Your task to perform on an android device: What's the latest video from Gameranx? Image 0: 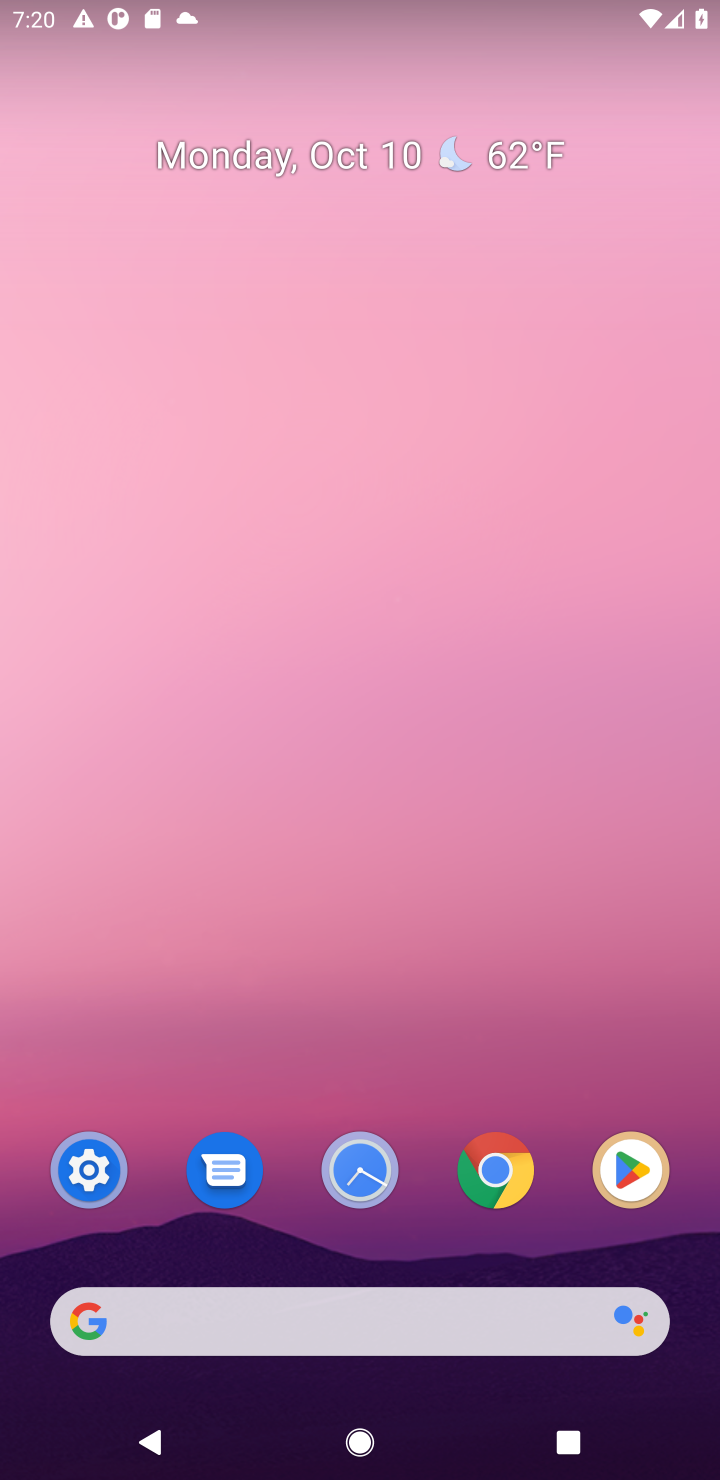
Step 0: drag from (470, 929) to (403, 0)
Your task to perform on an android device: What's the latest video from Gameranx? Image 1: 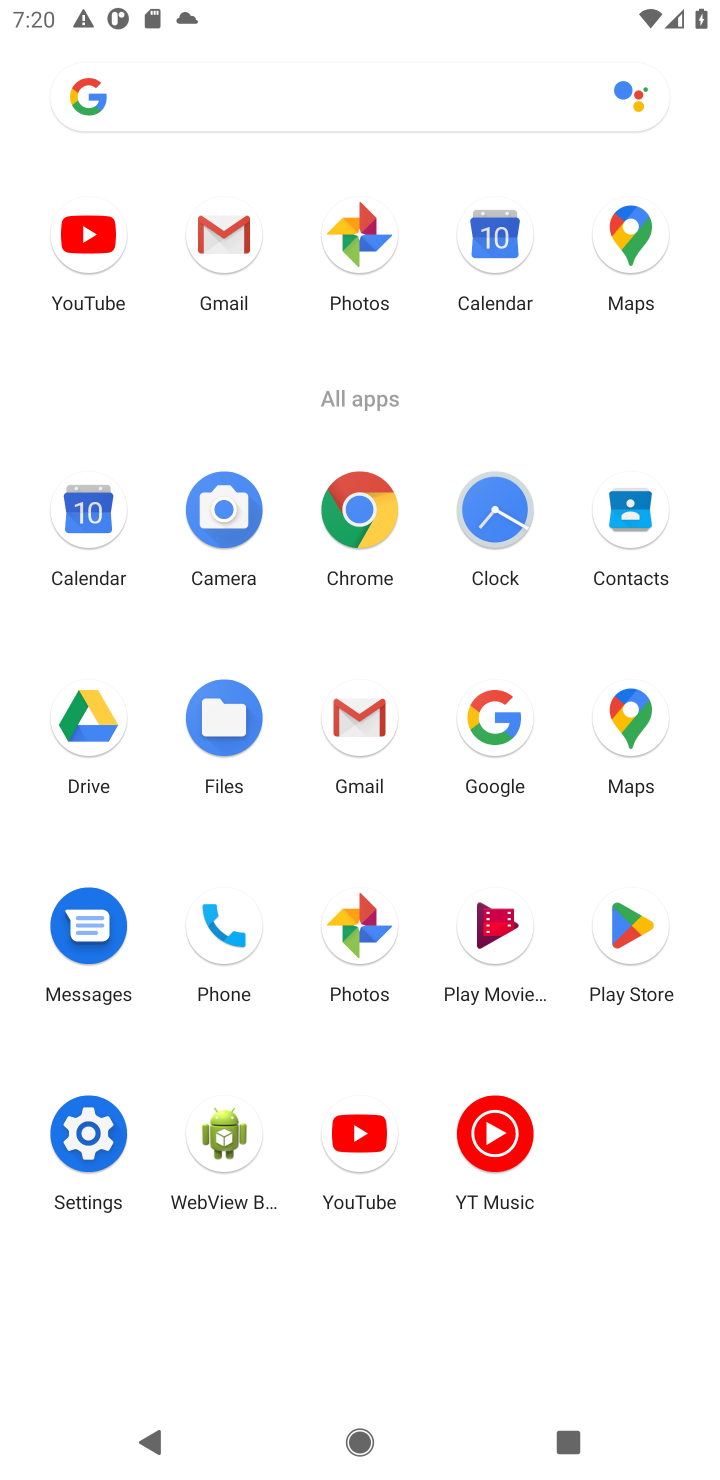
Step 1: click (101, 241)
Your task to perform on an android device: What's the latest video from Gameranx? Image 2: 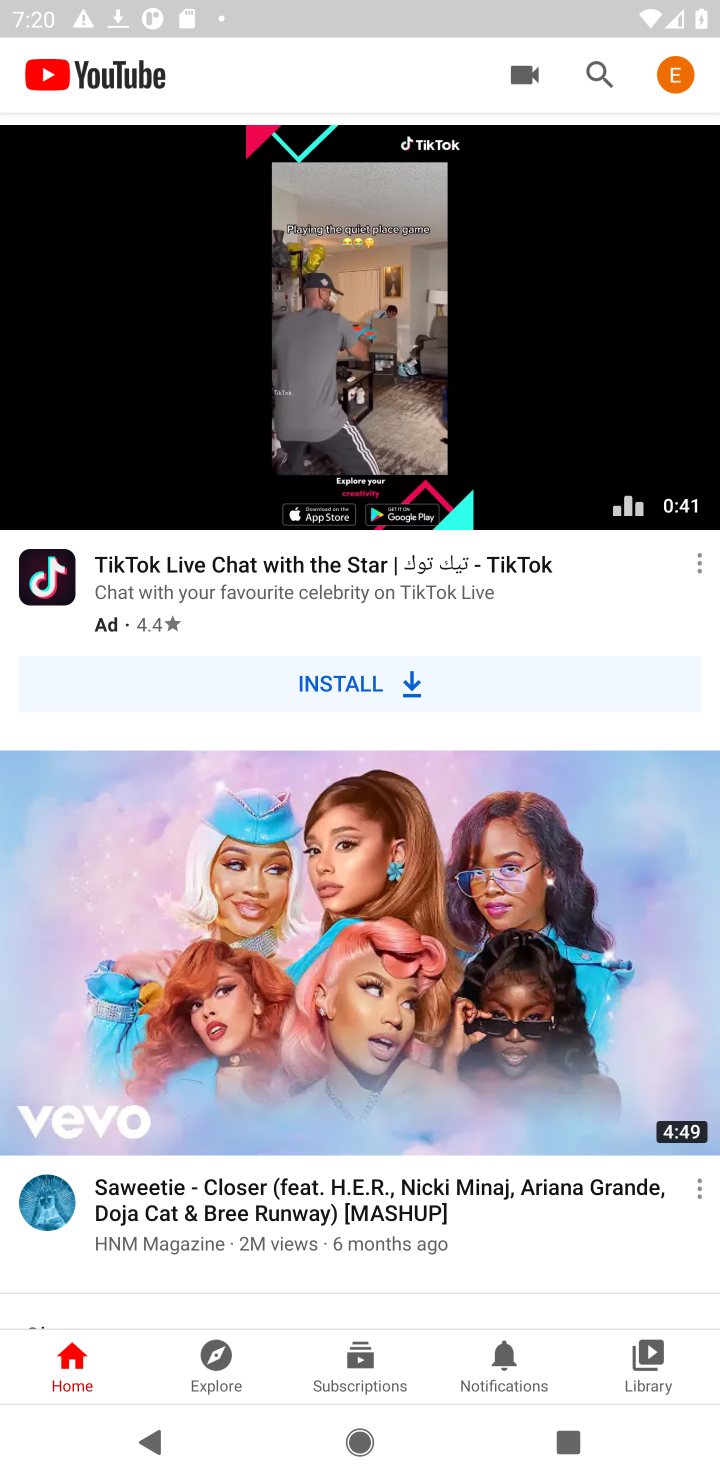
Step 2: click (602, 62)
Your task to perform on an android device: What's the latest video from Gameranx? Image 3: 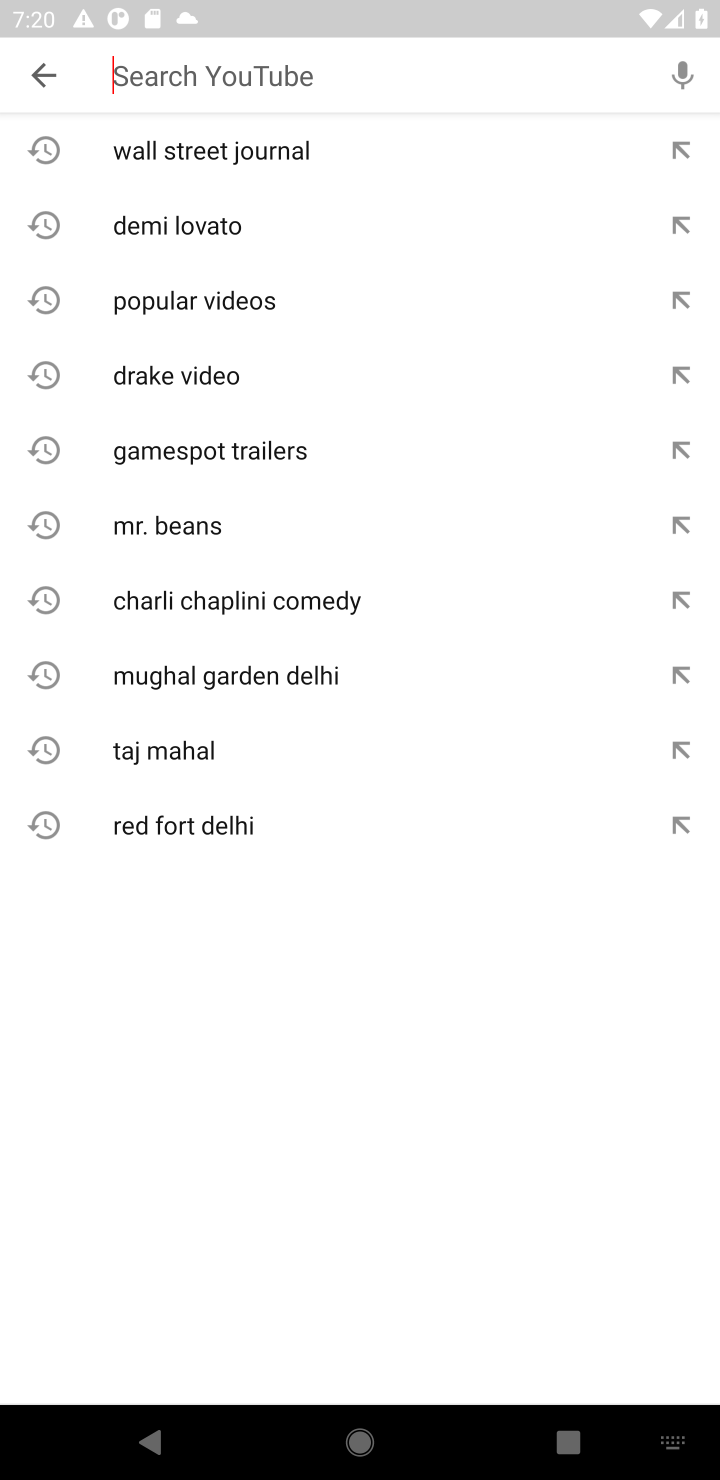
Step 3: type "gameranx"
Your task to perform on an android device: What's the latest video from Gameranx? Image 4: 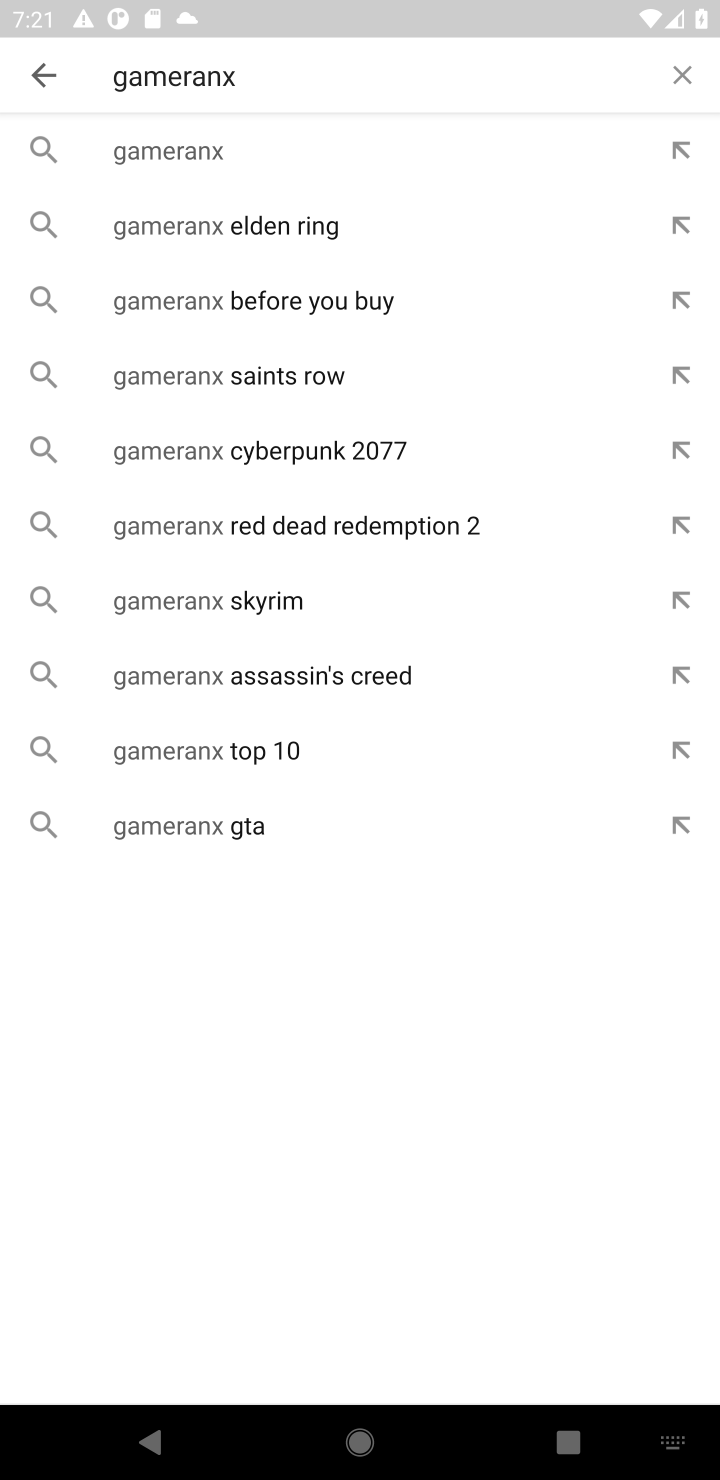
Step 4: click (221, 148)
Your task to perform on an android device: What's the latest video from Gameranx? Image 5: 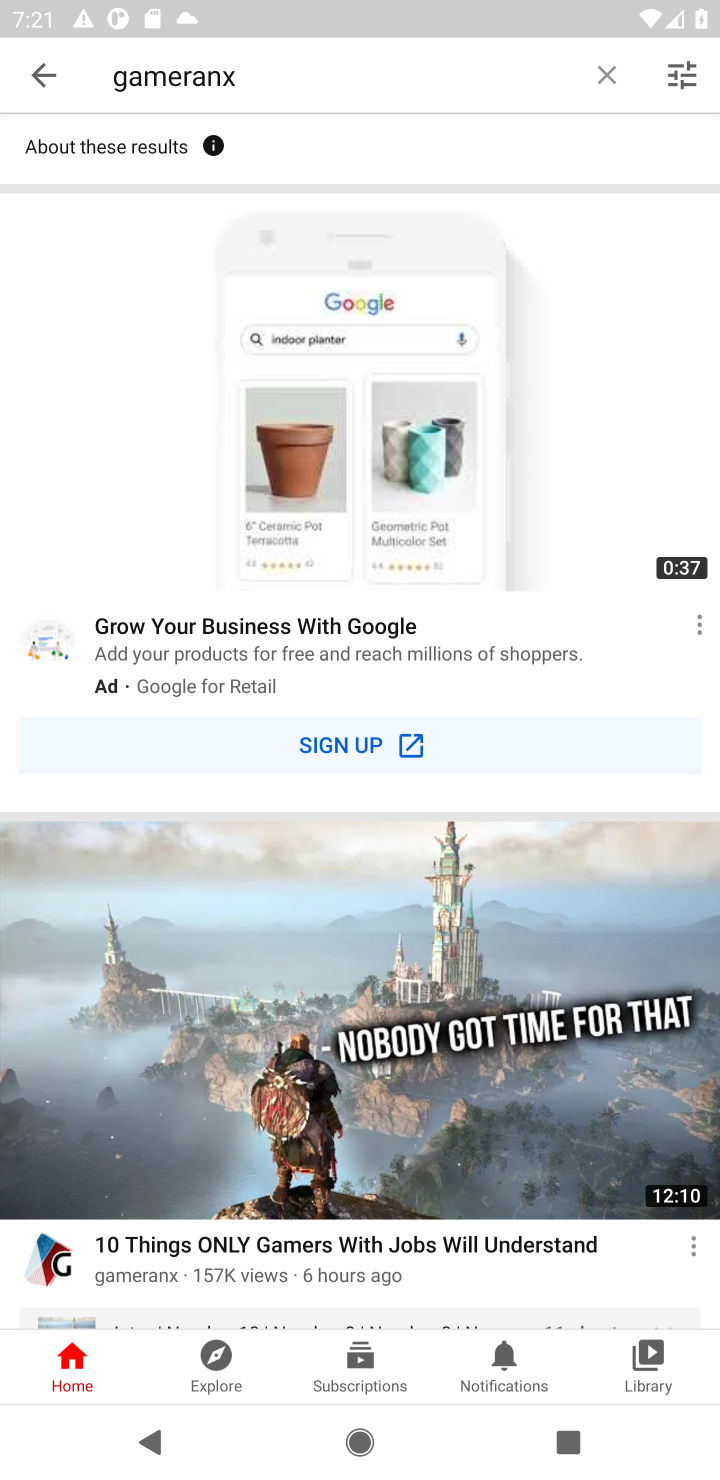
Step 5: drag from (680, 846) to (578, 341)
Your task to perform on an android device: What's the latest video from Gameranx? Image 6: 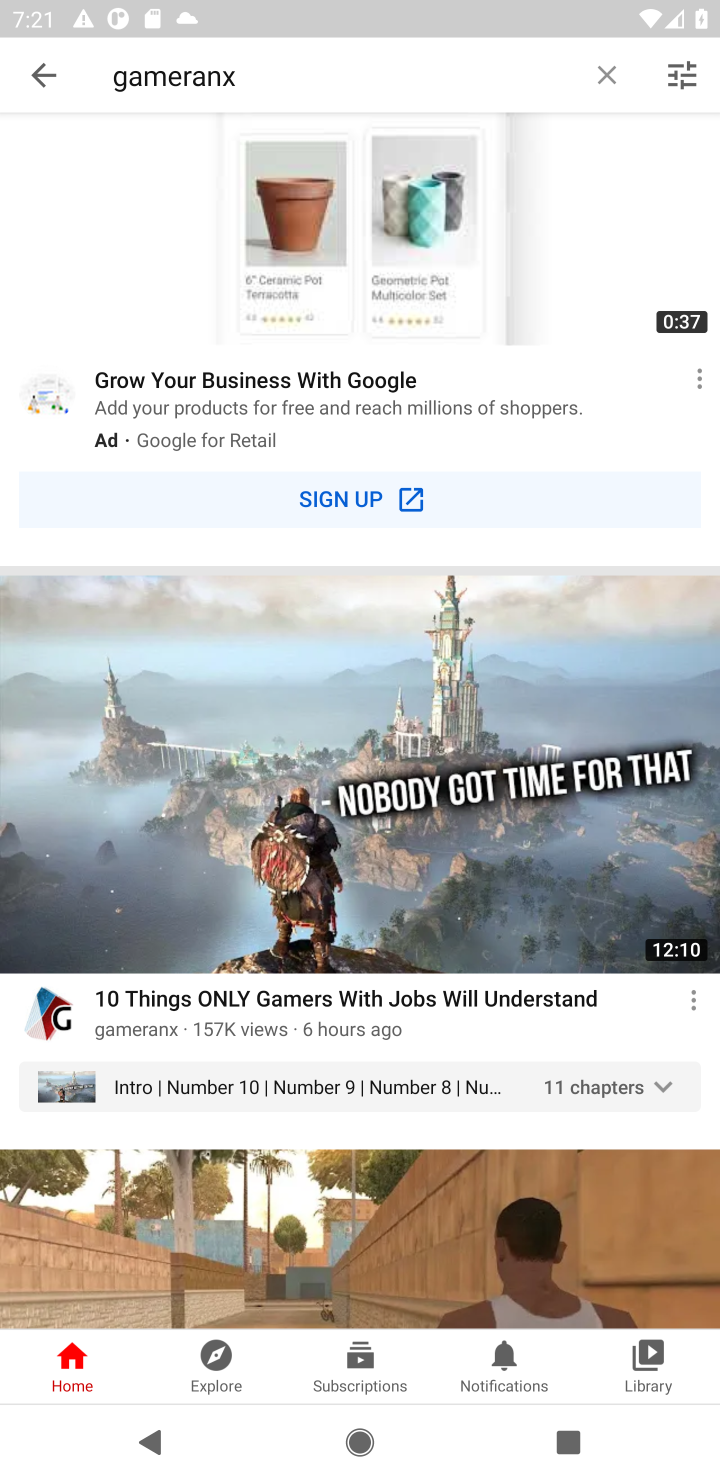
Step 6: drag from (554, 979) to (463, 567)
Your task to perform on an android device: What's the latest video from Gameranx? Image 7: 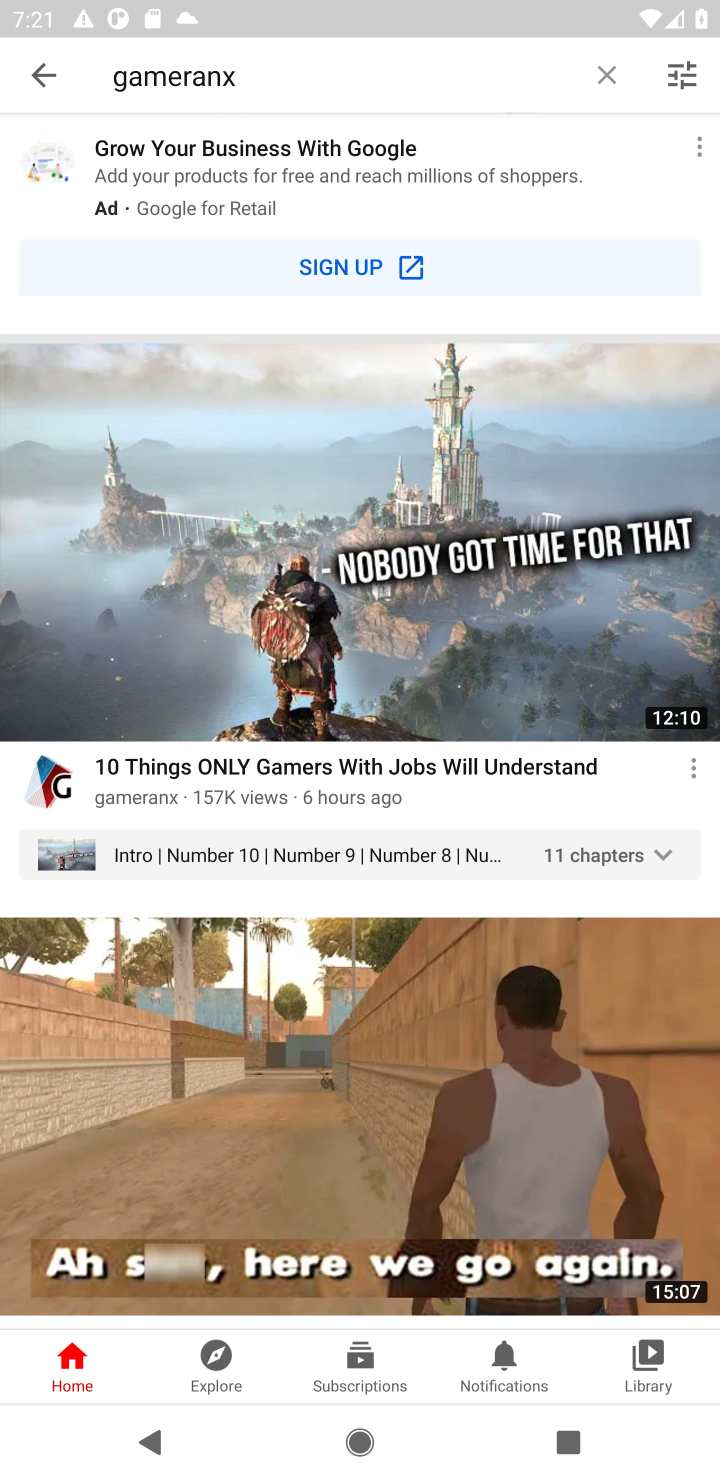
Step 7: click (291, 529)
Your task to perform on an android device: What's the latest video from Gameranx? Image 8: 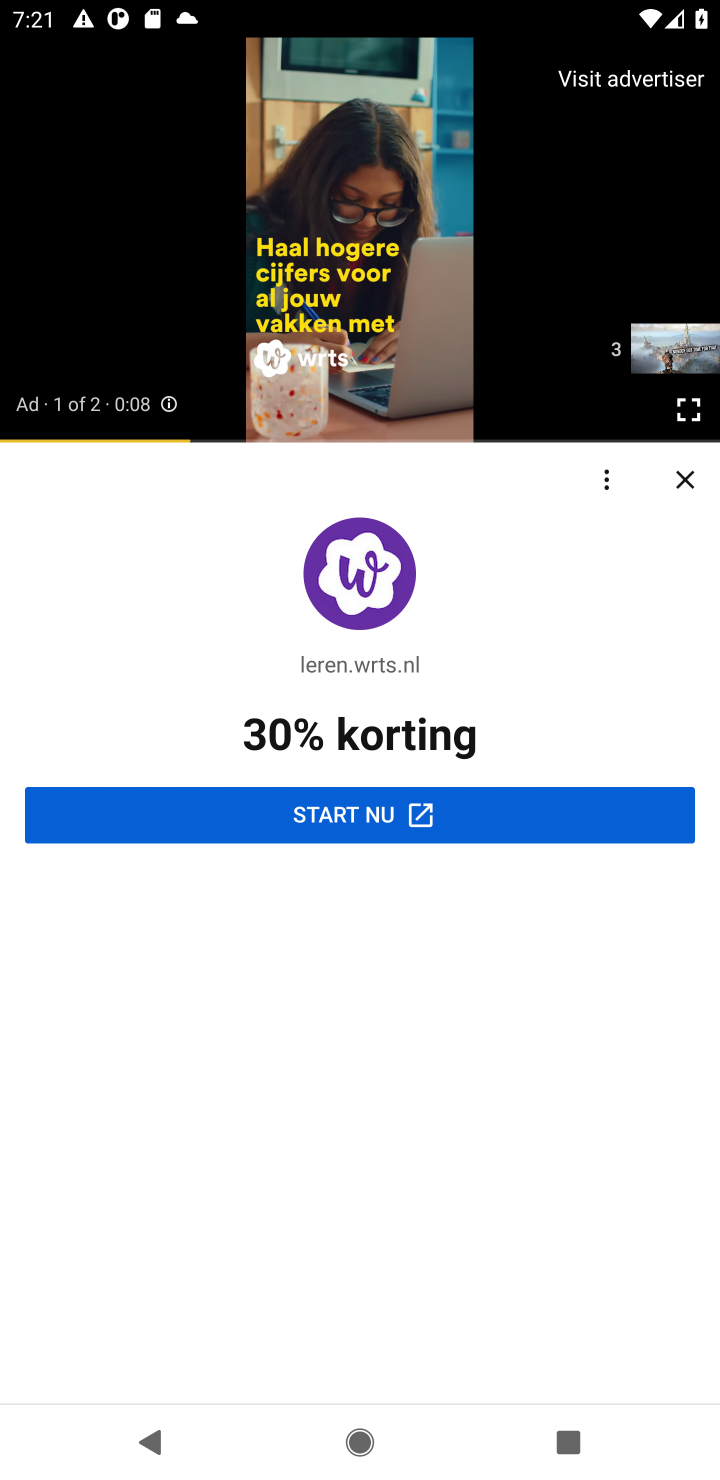
Step 8: task complete